Your task to perform on an android device: change your default location settings in chrome Image 0: 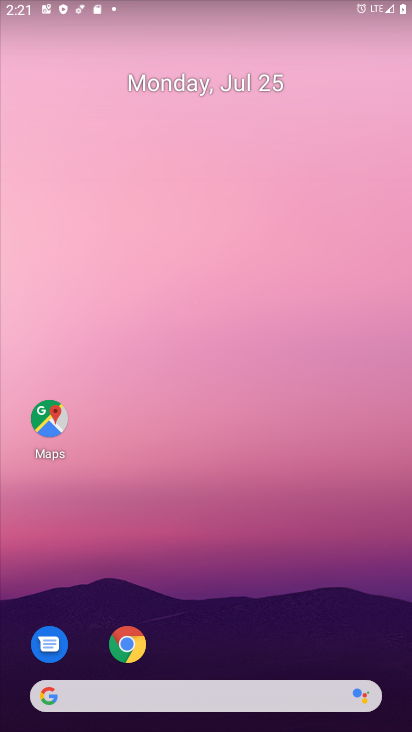
Step 0: drag from (369, 662) to (247, 28)
Your task to perform on an android device: change your default location settings in chrome Image 1: 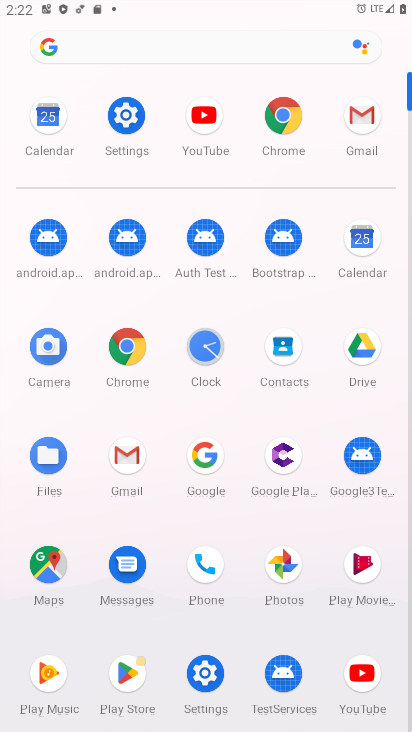
Step 1: click (127, 356)
Your task to perform on an android device: change your default location settings in chrome Image 2: 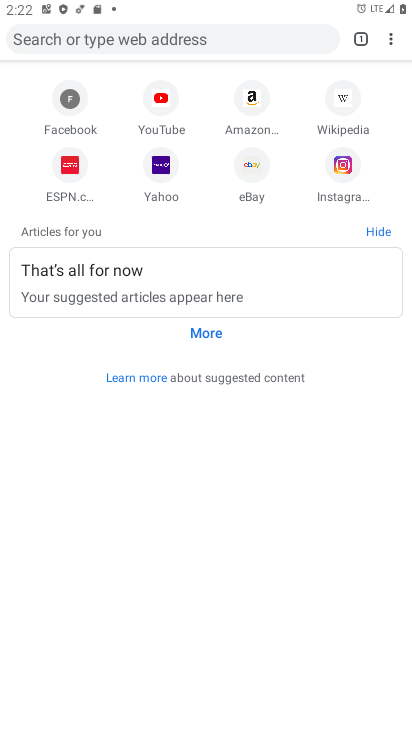
Step 2: click (386, 34)
Your task to perform on an android device: change your default location settings in chrome Image 3: 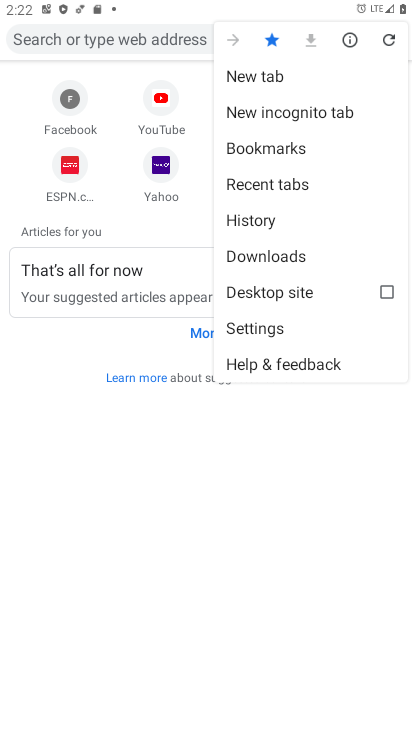
Step 3: click (249, 338)
Your task to perform on an android device: change your default location settings in chrome Image 4: 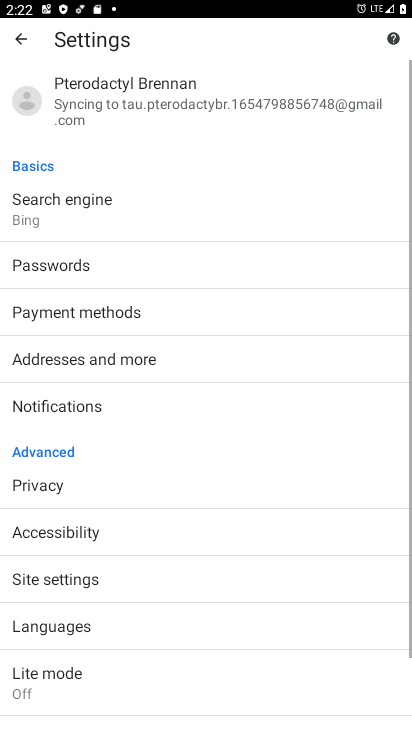
Step 4: click (51, 219)
Your task to perform on an android device: change your default location settings in chrome Image 5: 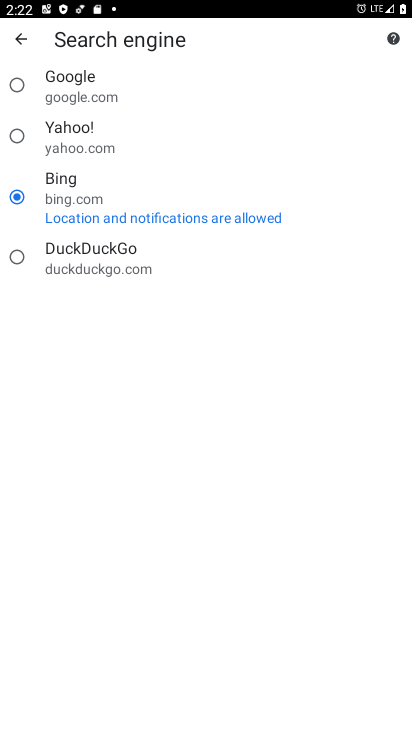
Step 5: click (76, 98)
Your task to perform on an android device: change your default location settings in chrome Image 6: 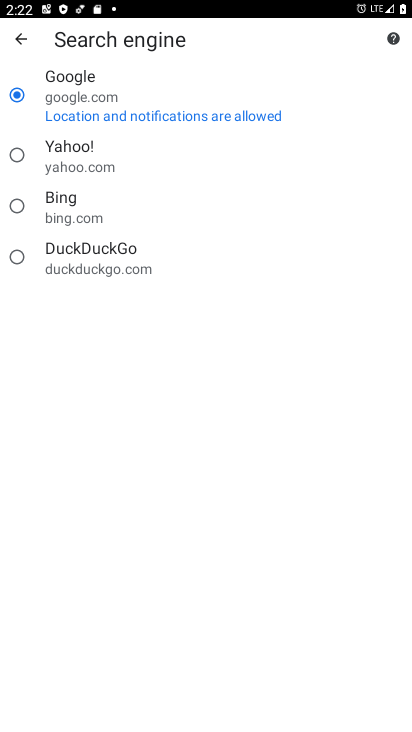
Step 6: task complete